Your task to perform on an android device: Find coffee shops on Maps Image 0: 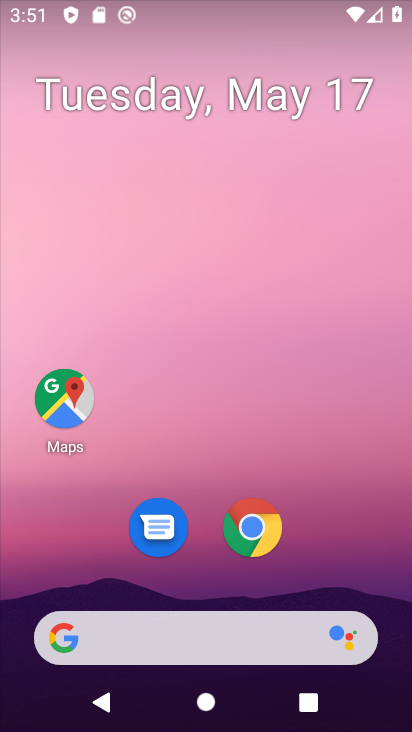
Step 0: click (87, 412)
Your task to perform on an android device: Find coffee shops on Maps Image 1: 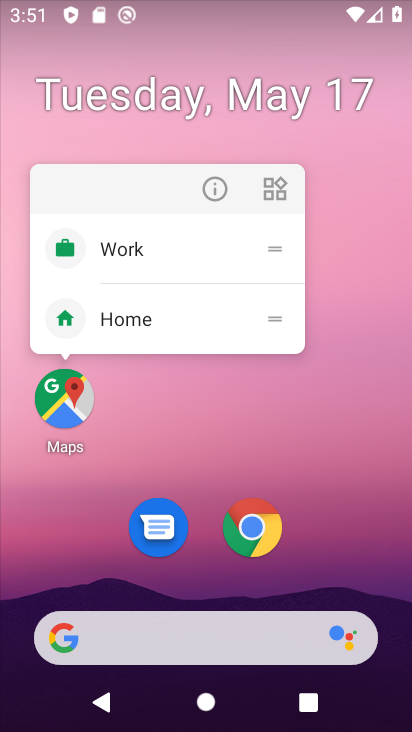
Step 1: click (55, 416)
Your task to perform on an android device: Find coffee shops on Maps Image 2: 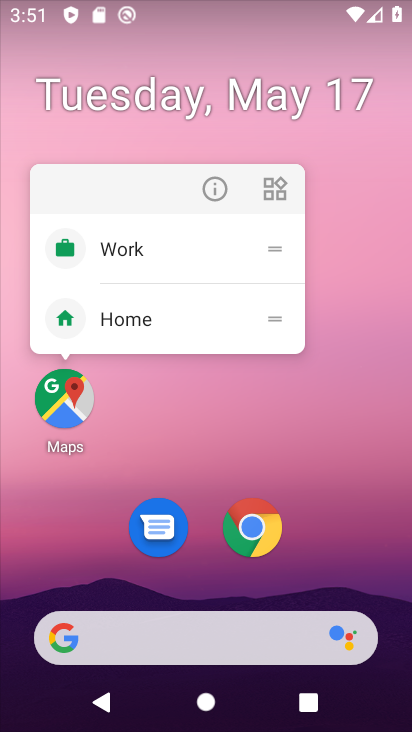
Step 2: click (55, 415)
Your task to perform on an android device: Find coffee shops on Maps Image 3: 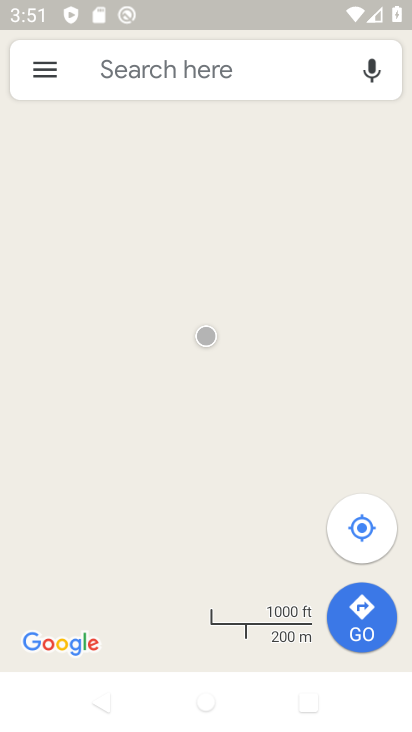
Step 3: click (168, 68)
Your task to perform on an android device: Find coffee shops on Maps Image 4: 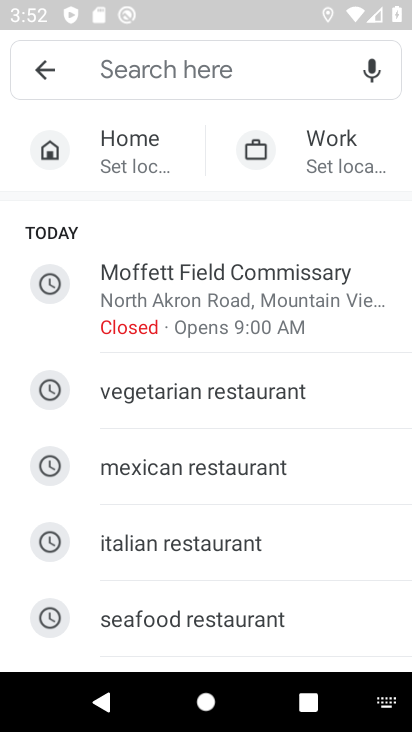
Step 4: type "Coffee shops"
Your task to perform on an android device: Find coffee shops on Maps Image 5: 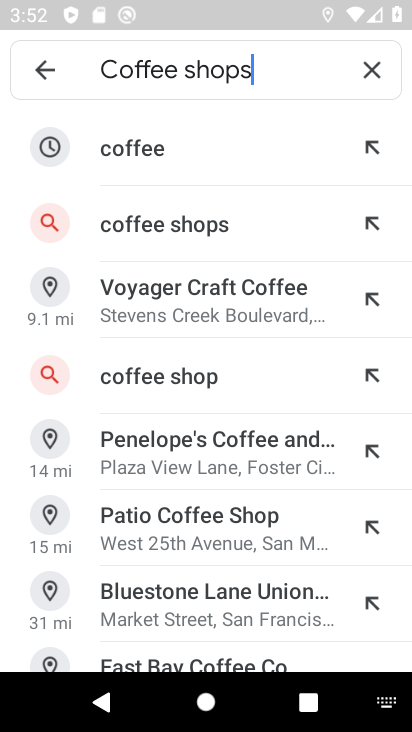
Step 5: click (212, 225)
Your task to perform on an android device: Find coffee shops on Maps Image 6: 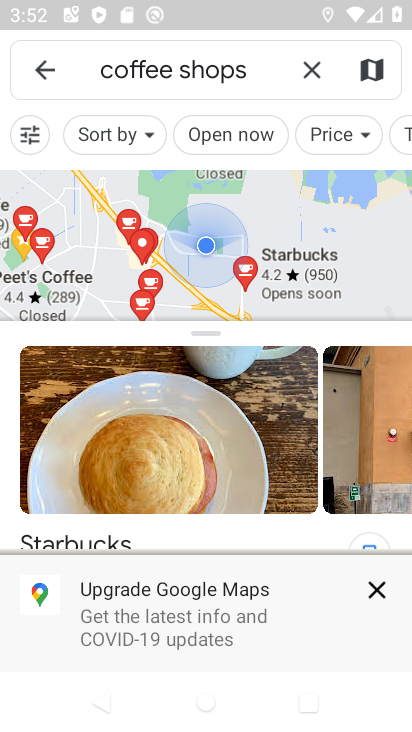
Step 6: click (369, 588)
Your task to perform on an android device: Find coffee shops on Maps Image 7: 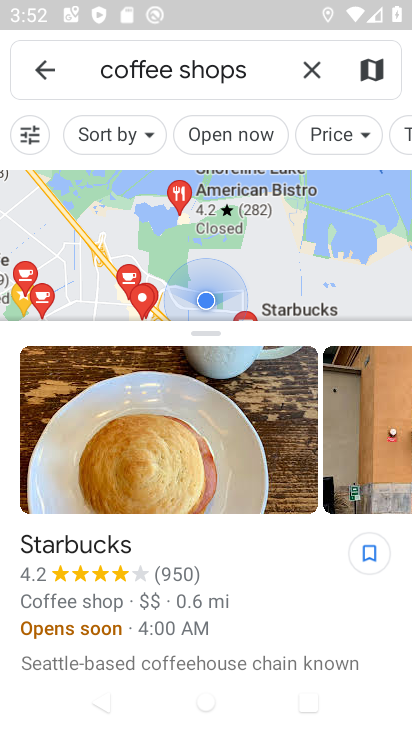
Step 7: task complete